Your task to perform on an android device: Play the last video I watched on Youtube Image 0: 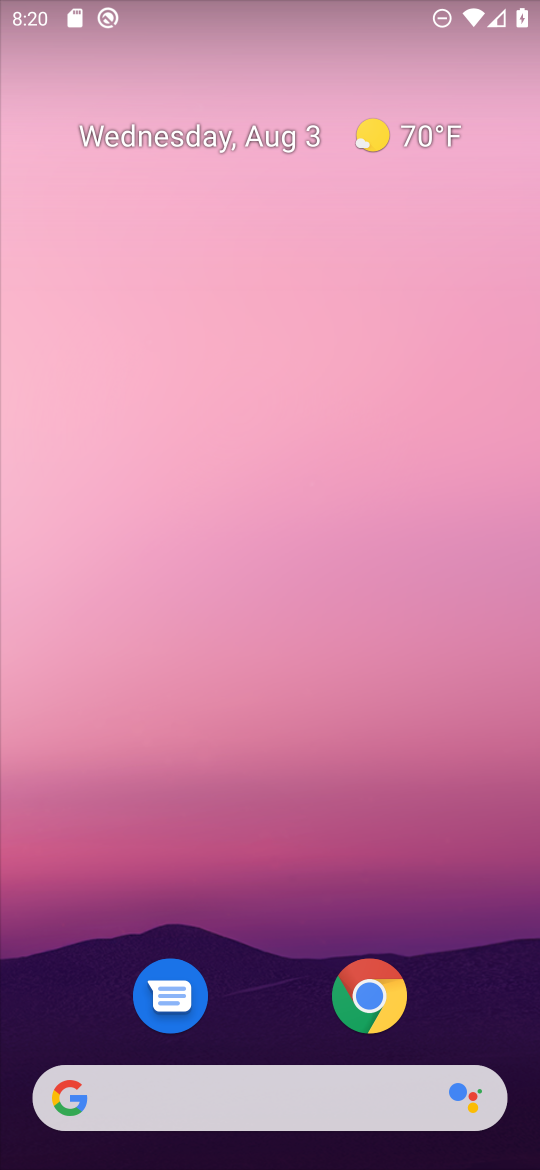
Step 0: drag from (281, 863) to (310, 0)
Your task to perform on an android device: Play the last video I watched on Youtube Image 1: 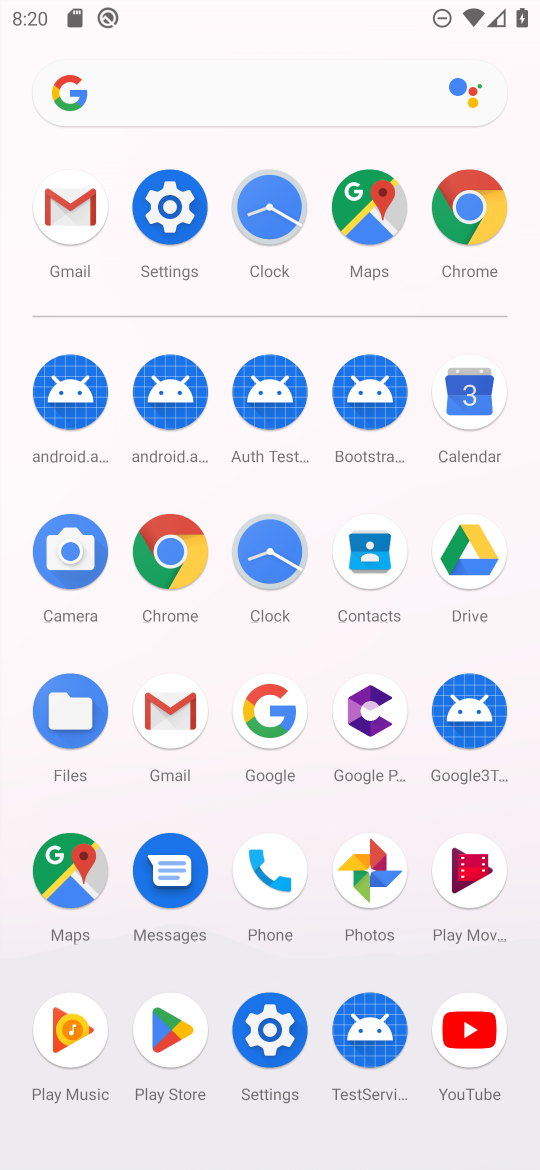
Step 1: click (466, 1019)
Your task to perform on an android device: Play the last video I watched on Youtube Image 2: 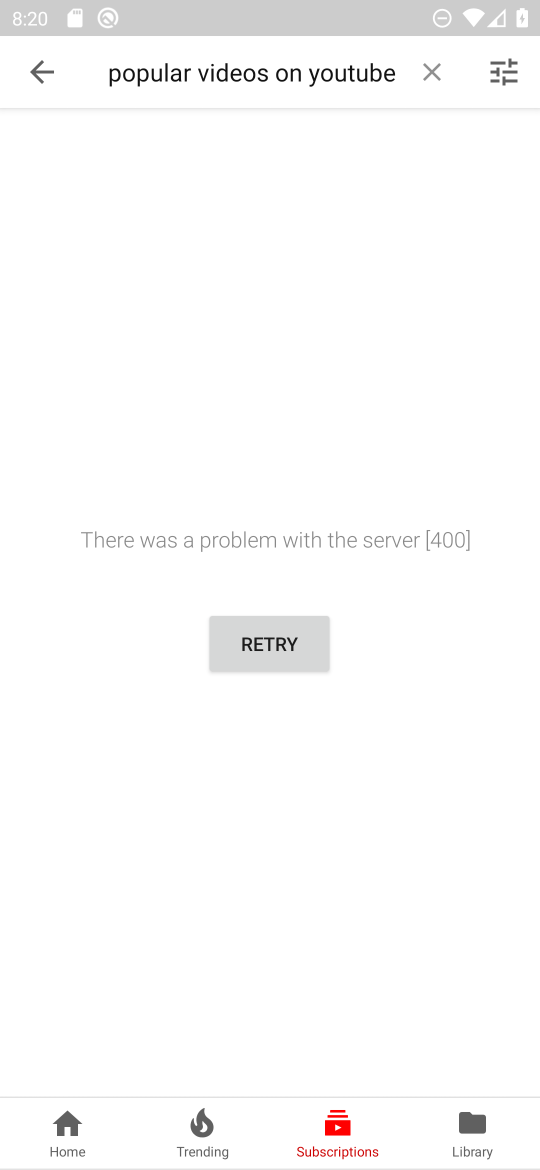
Step 2: click (427, 58)
Your task to perform on an android device: Play the last video I watched on Youtube Image 3: 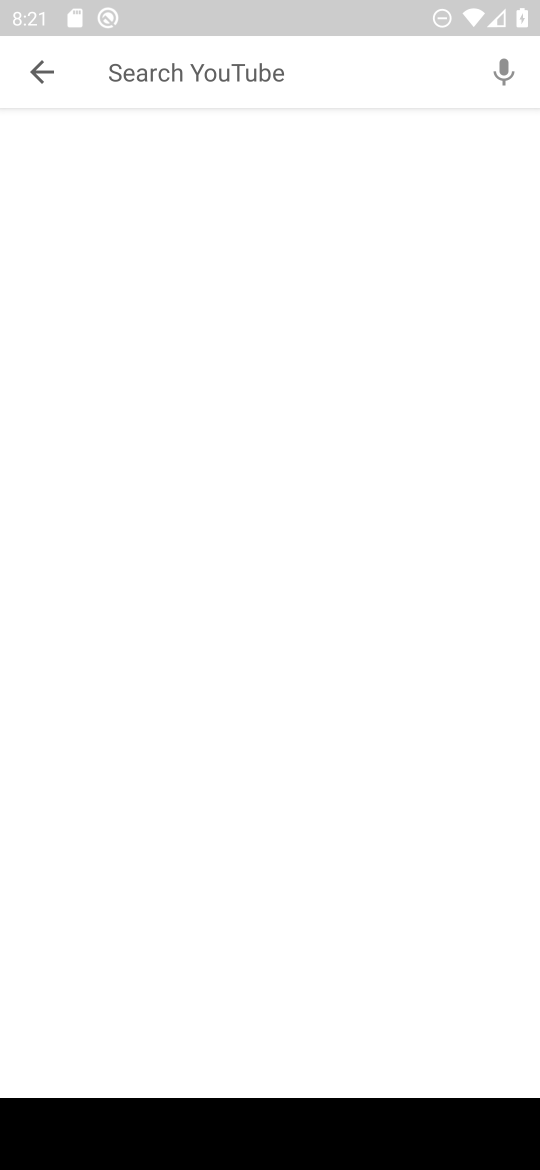
Step 3: click (45, 71)
Your task to perform on an android device: Play the last video I watched on Youtube Image 4: 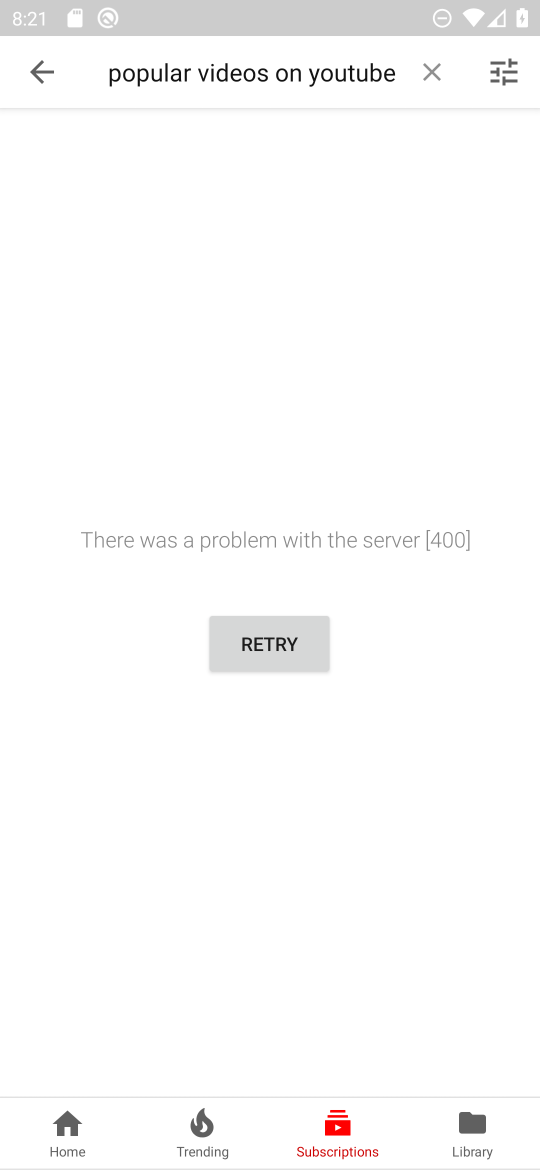
Step 4: click (470, 1139)
Your task to perform on an android device: Play the last video I watched on Youtube Image 5: 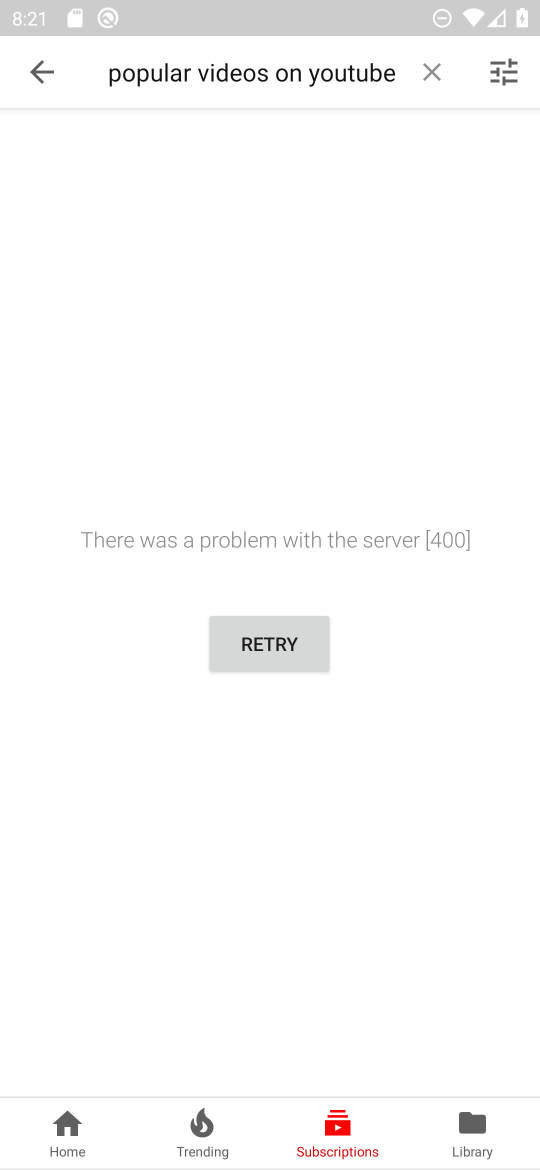
Step 5: click (470, 1129)
Your task to perform on an android device: Play the last video I watched on Youtube Image 6: 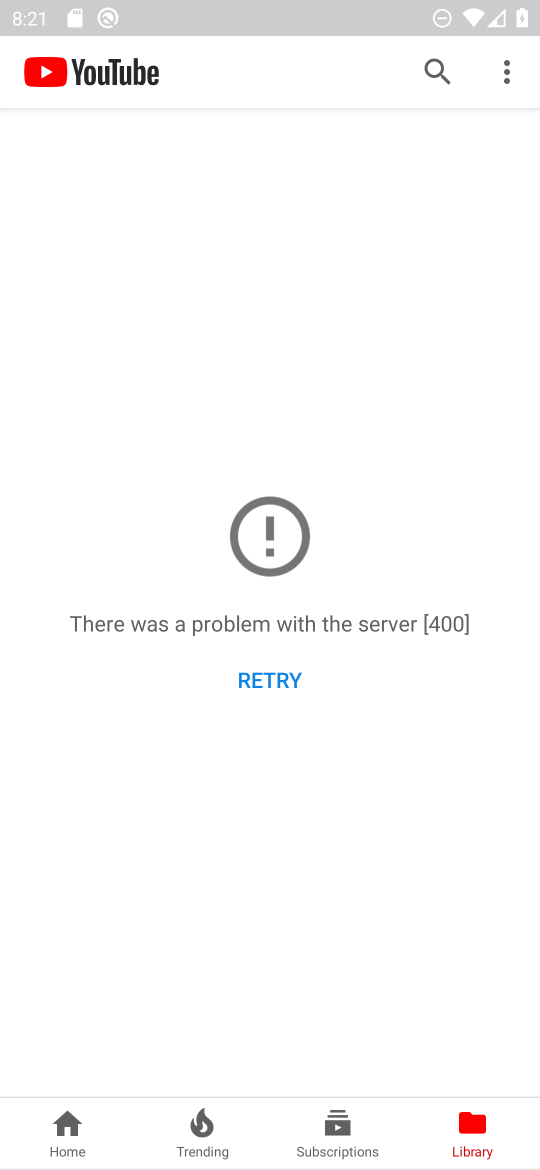
Step 6: task complete